Your task to perform on an android device: turn on the 24-hour format for clock Image 0: 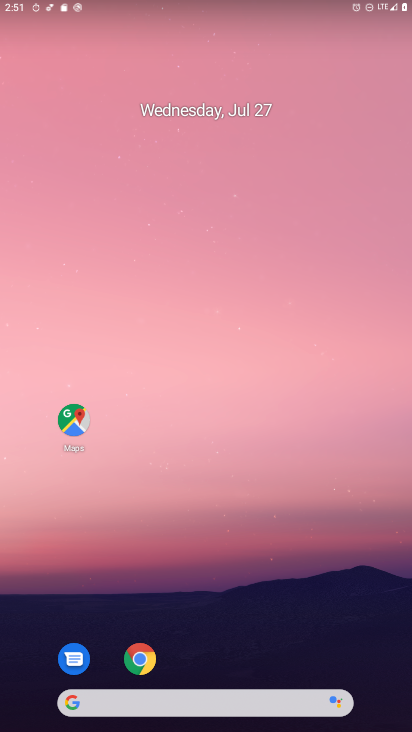
Step 0: drag from (294, 615) to (264, 76)
Your task to perform on an android device: turn on the 24-hour format for clock Image 1: 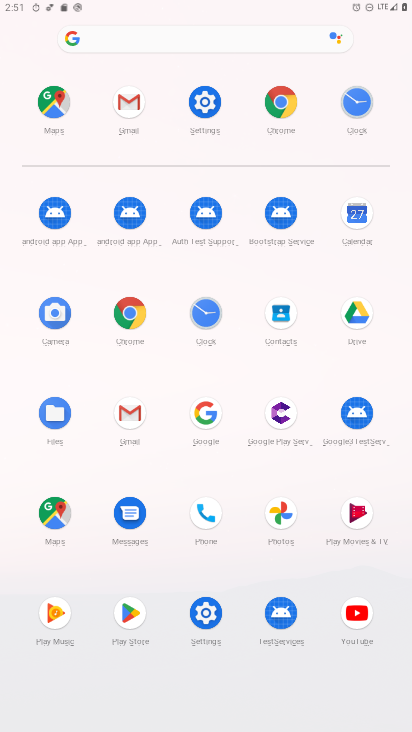
Step 1: click (210, 316)
Your task to perform on an android device: turn on the 24-hour format for clock Image 2: 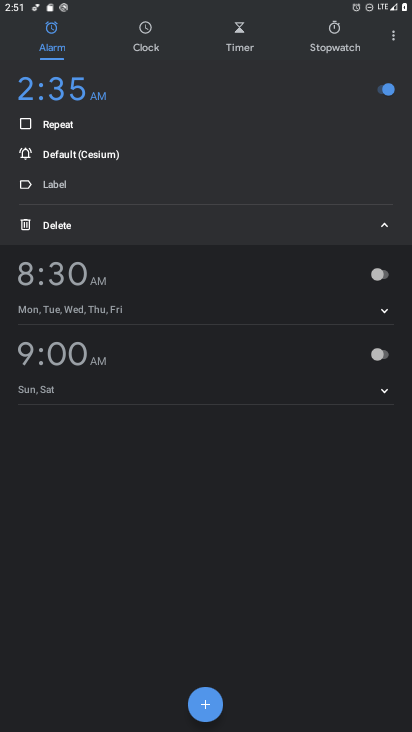
Step 2: click (398, 35)
Your task to perform on an android device: turn on the 24-hour format for clock Image 3: 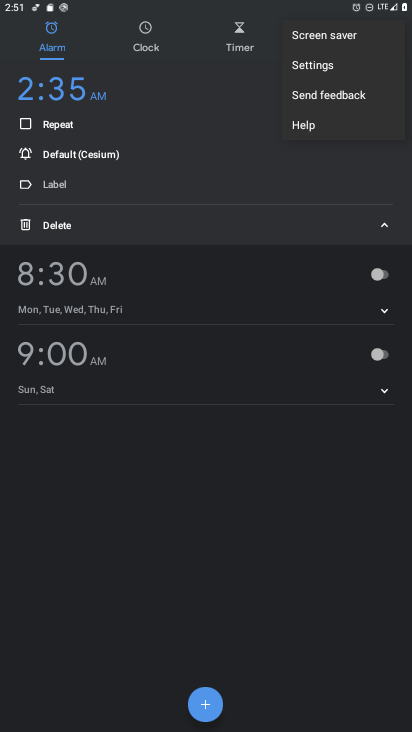
Step 3: click (309, 67)
Your task to perform on an android device: turn on the 24-hour format for clock Image 4: 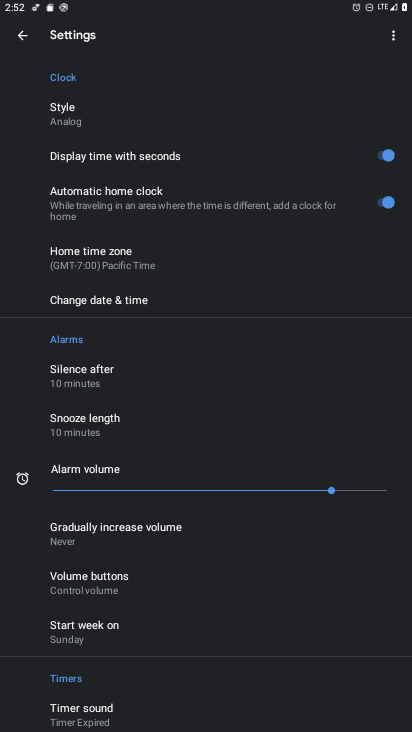
Step 4: click (117, 304)
Your task to perform on an android device: turn on the 24-hour format for clock Image 5: 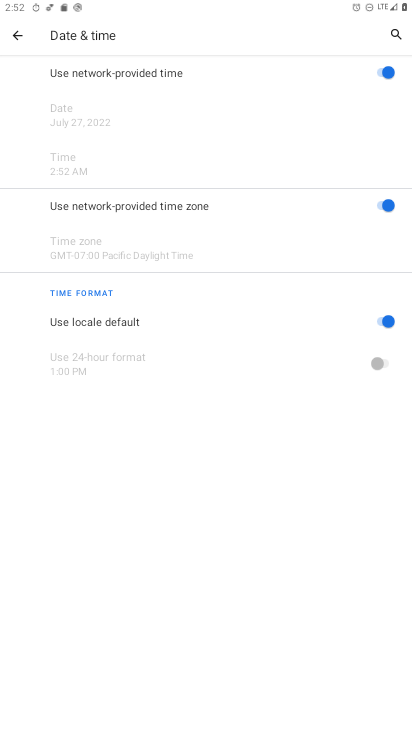
Step 5: click (375, 321)
Your task to perform on an android device: turn on the 24-hour format for clock Image 6: 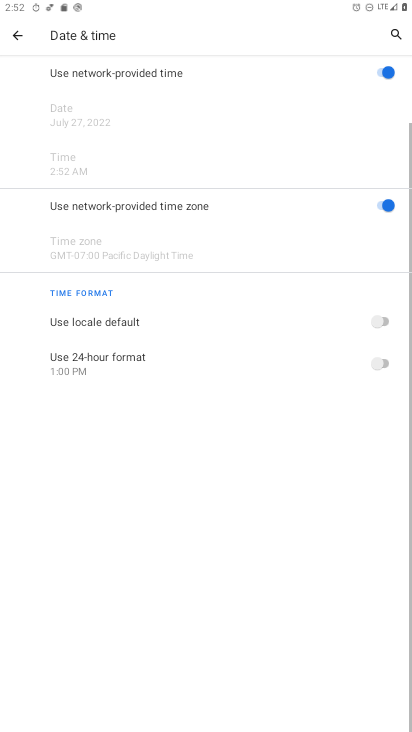
Step 6: click (382, 359)
Your task to perform on an android device: turn on the 24-hour format for clock Image 7: 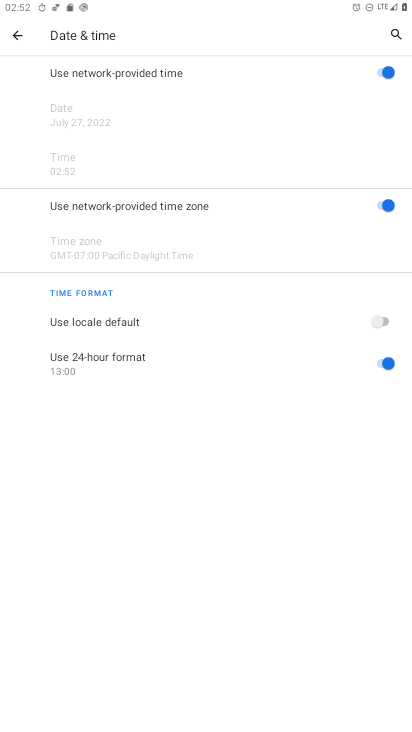
Step 7: task complete